Your task to perform on an android device: turn on translation in the chrome app Image 0: 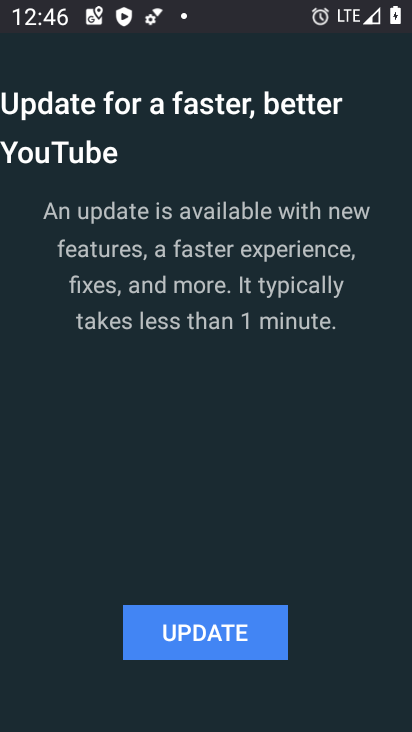
Step 0: press home button
Your task to perform on an android device: turn on translation in the chrome app Image 1: 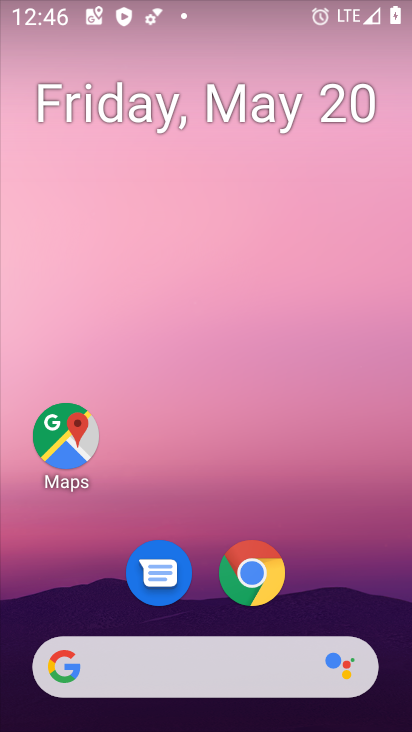
Step 1: click (253, 565)
Your task to perform on an android device: turn on translation in the chrome app Image 2: 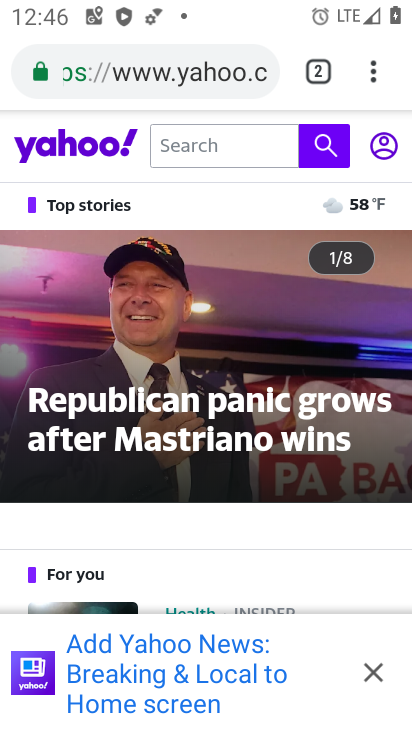
Step 2: click (364, 75)
Your task to perform on an android device: turn on translation in the chrome app Image 3: 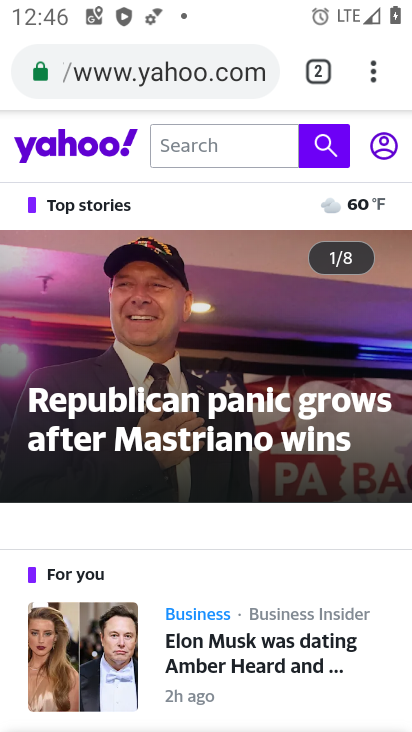
Step 3: click (365, 67)
Your task to perform on an android device: turn on translation in the chrome app Image 4: 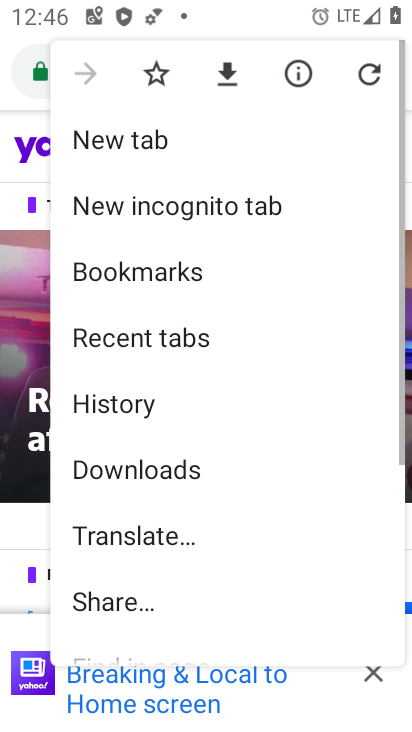
Step 4: drag from (185, 606) to (205, 129)
Your task to perform on an android device: turn on translation in the chrome app Image 5: 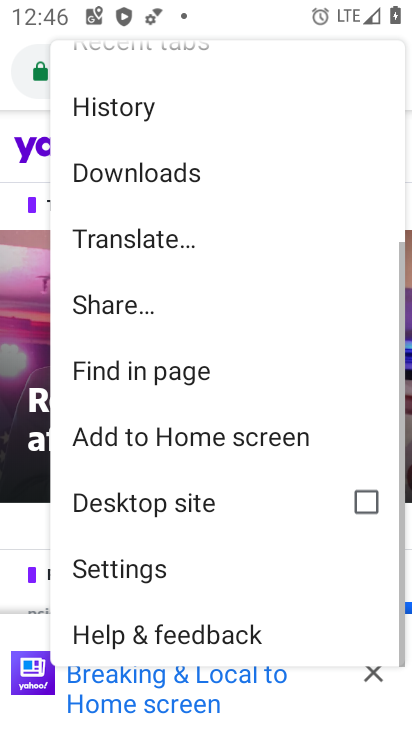
Step 5: click (119, 565)
Your task to perform on an android device: turn on translation in the chrome app Image 6: 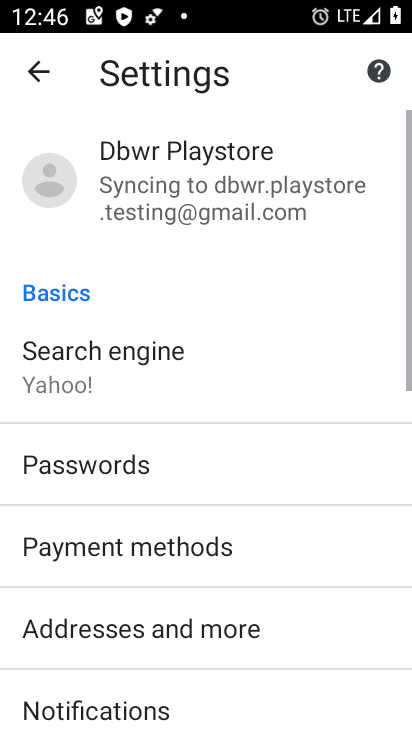
Step 6: drag from (248, 541) to (299, 76)
Your task to perform on an android device: turn on translation in the chrome app Image 7: 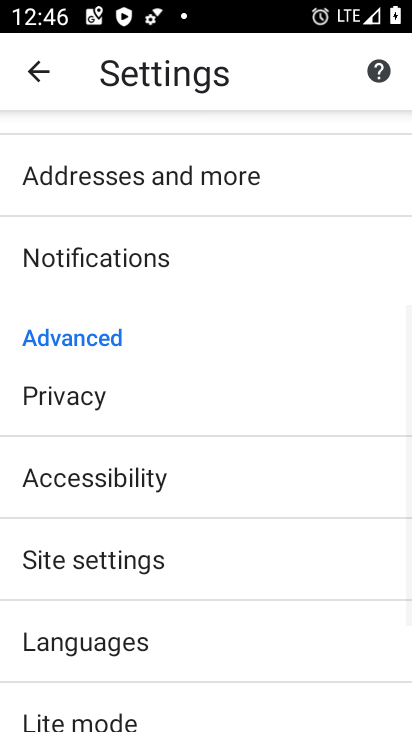
Step 7: click (167, 641)
Your task to perform on an android device: turn on translation in the chrome app Image 8: 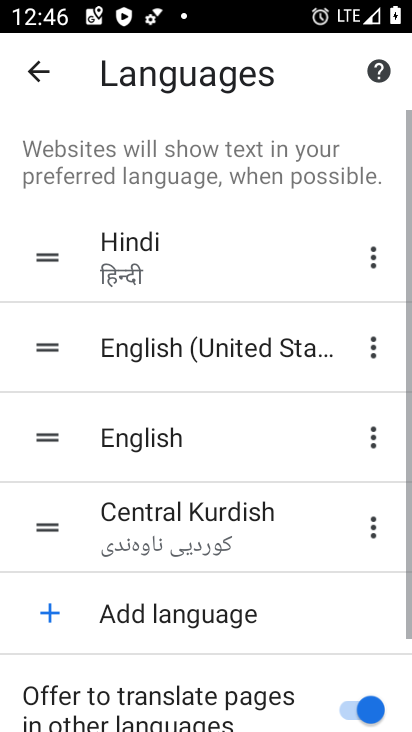
Step 8: task complete